Your task to perform on an android device: find snoozed emails in the gmail app Image 0: 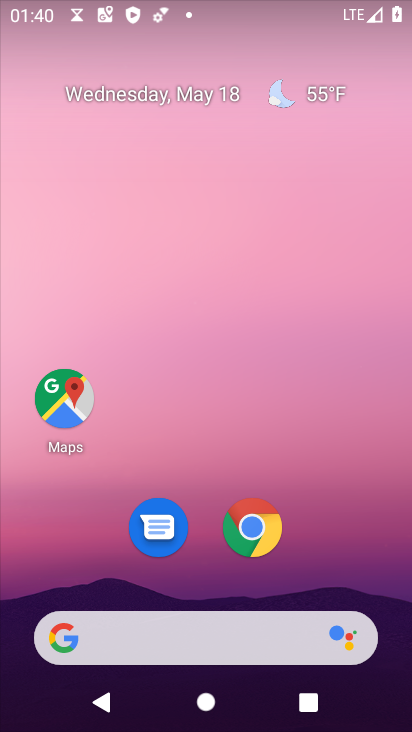
Step 0: drag from (323, 581) to (172, 50)
Your task to perform on an android device: find snoozed emails in the gmail app Image 1: 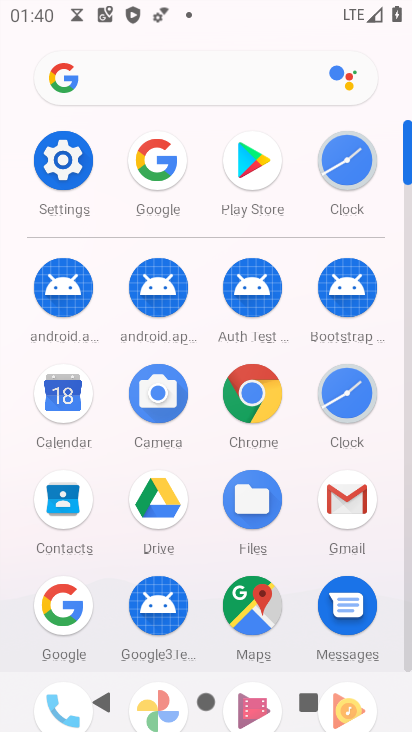
Step 1: click (355, 492)
Your task to perform on an android device: find snoozed emails in the gmail app Image 2: 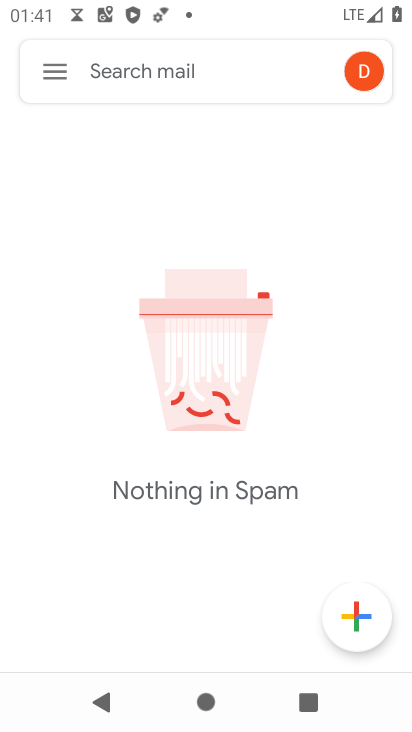
Step 2: click (56, 74)
Your task to perform on an android device: find snoozed emails in the gmail app Image 3: 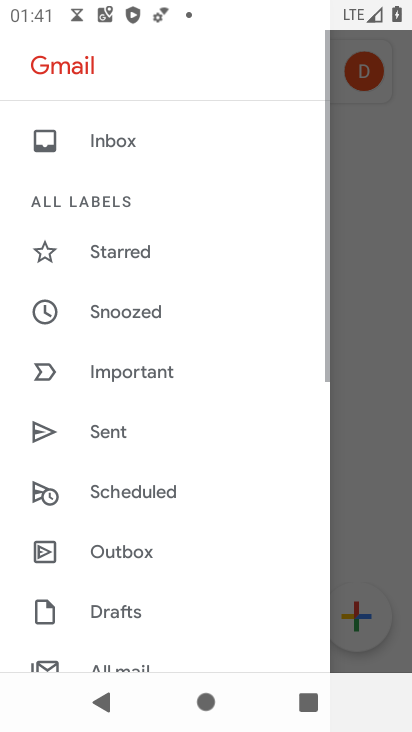
Step 3: click (111, 301)
Your task to perform on an android device: find snoozed emails in the gmail app Image 4: 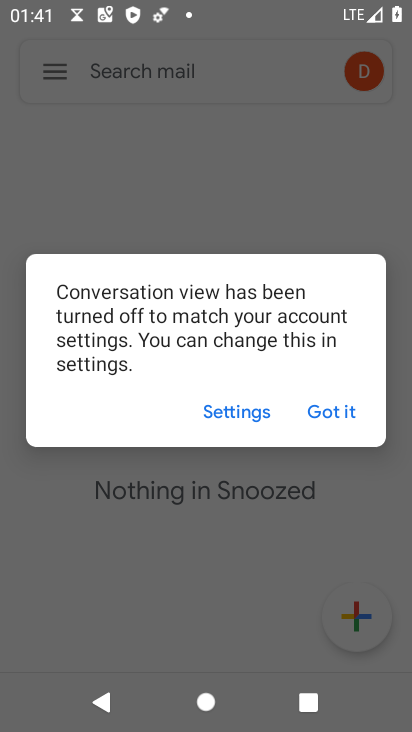
Step 4: task complete